Your task to perform on an android device: open app "Microsoft Authenticator" (install if not already installed) Image 0: 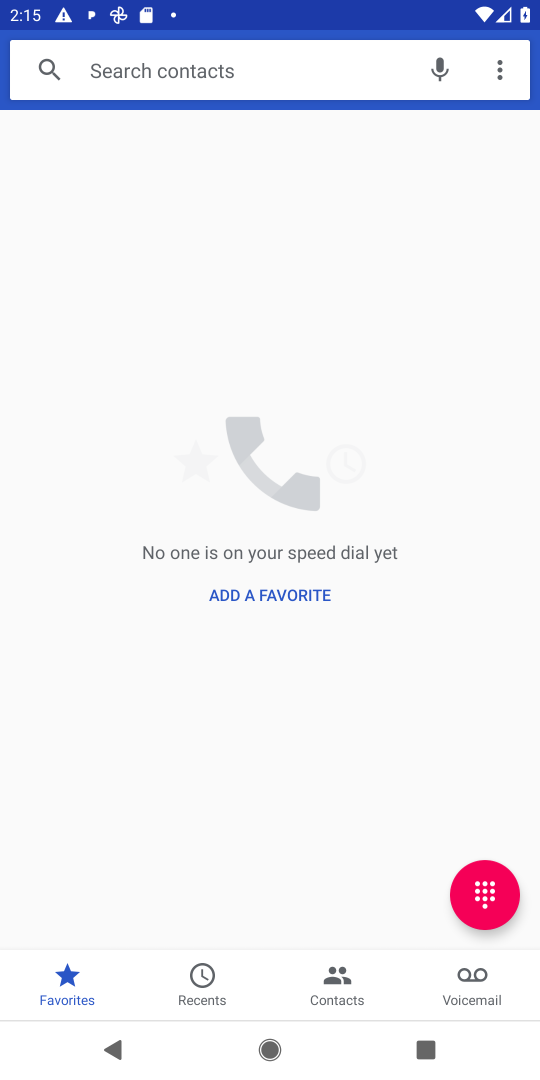
Step 0: press home button
Your task to perform on an android device: open app "Microsoft Authenticator" (install if not already installed) Image 1: 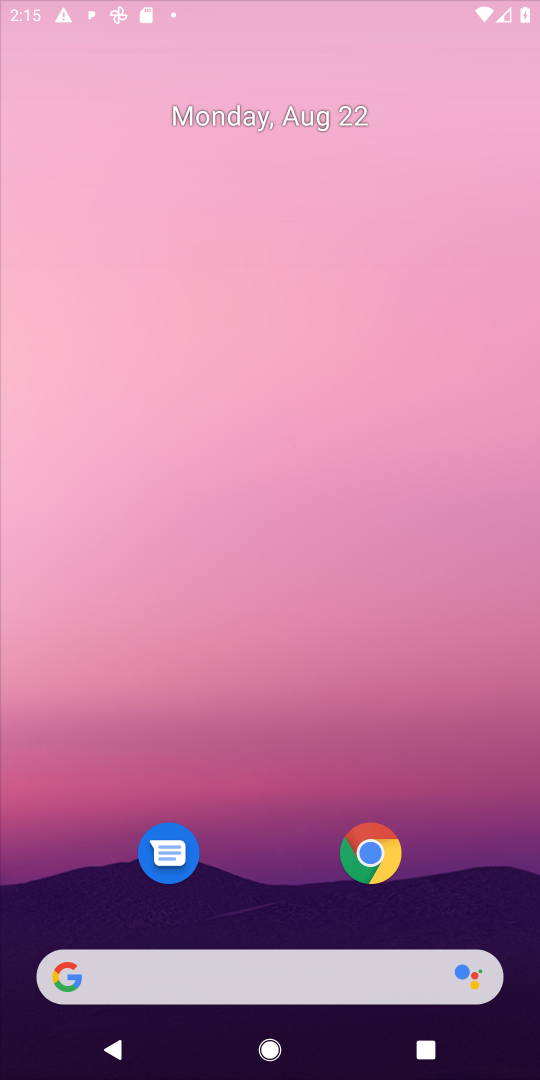
Step 1: drag from (259, 900) to (198, 247)
Your task to perform on an android device: open app "Microsoft Authenticator" (install if not already installed) Image 2: 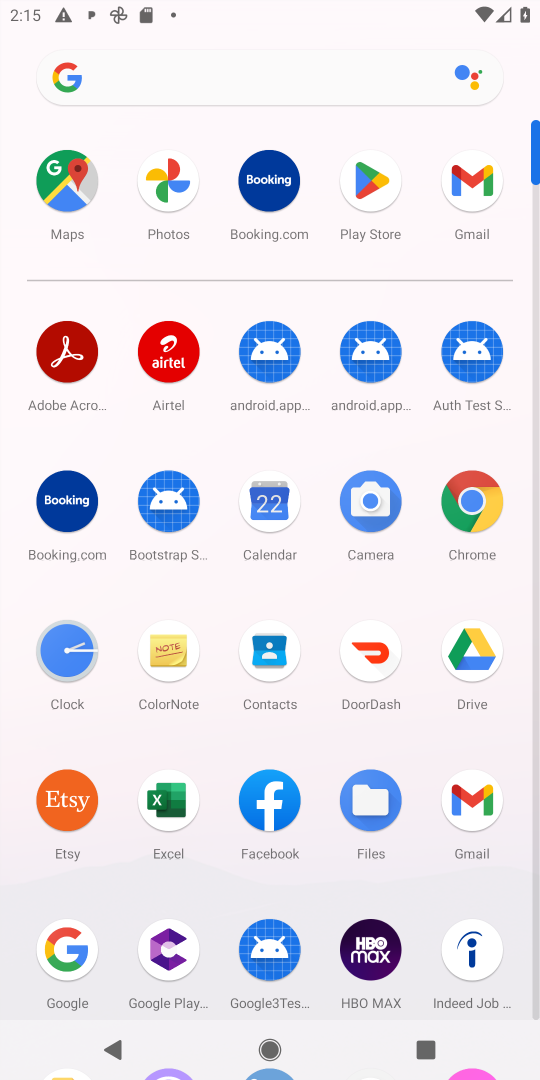
Step 2: click (365, 174)
Your task to perform on an android device: open app "Microsoft Authenticator" (install if not already installed) Image 3: 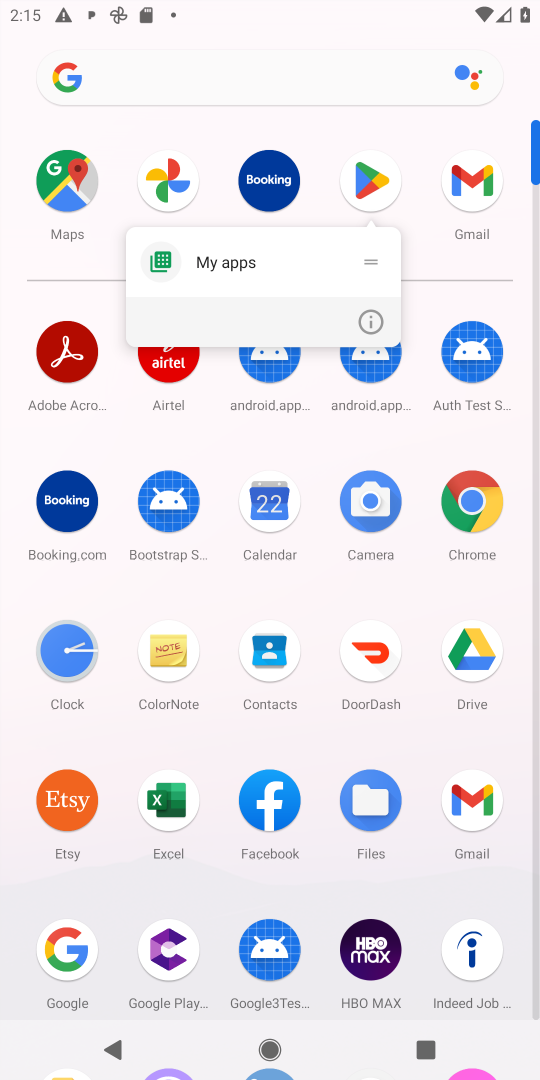
Step 3: click (365, 174)
Your task to perform on an android device: open app "Microsoft Authenticator" (install if not already installed) Image 4: 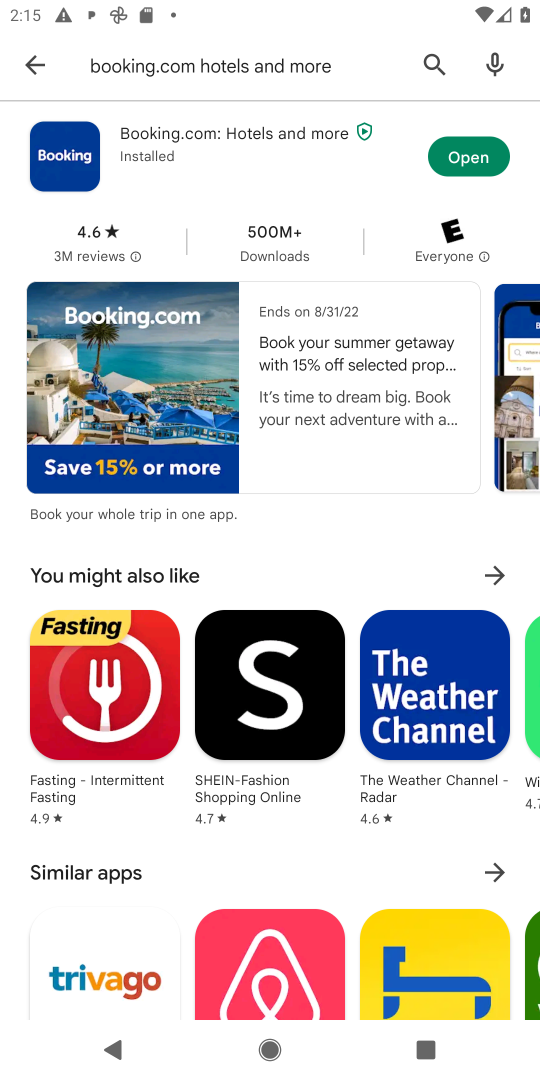
Step 4: click (37, 62)
Your task to perform on an android device: open app "Microsoft Authenticator" (install if not already installed) Image 5: 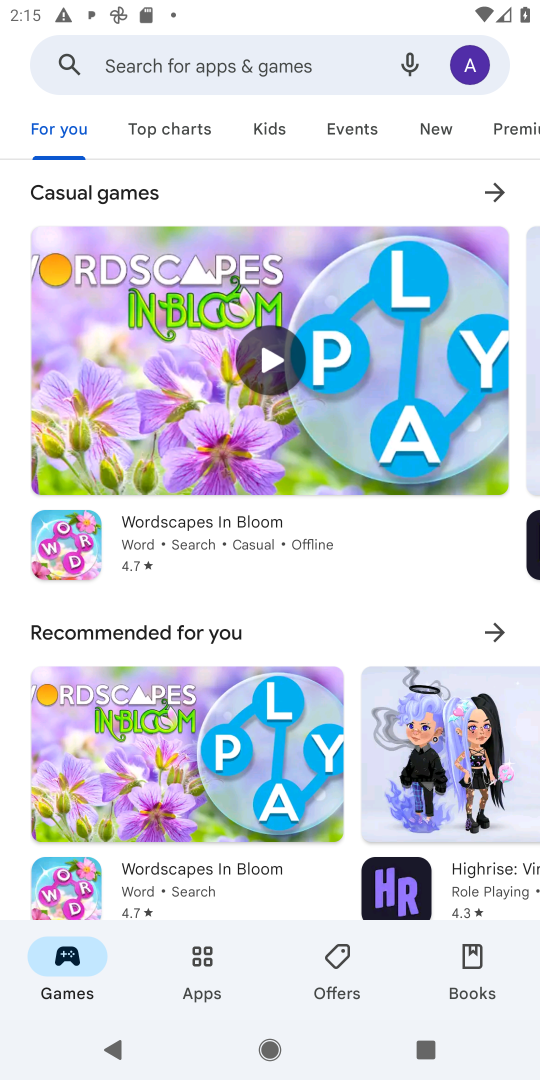
Step 5: click (204, 59)
Your task to perform on an android device: open app "Microsoft Authenticator" (install if not already installed) Image 6: 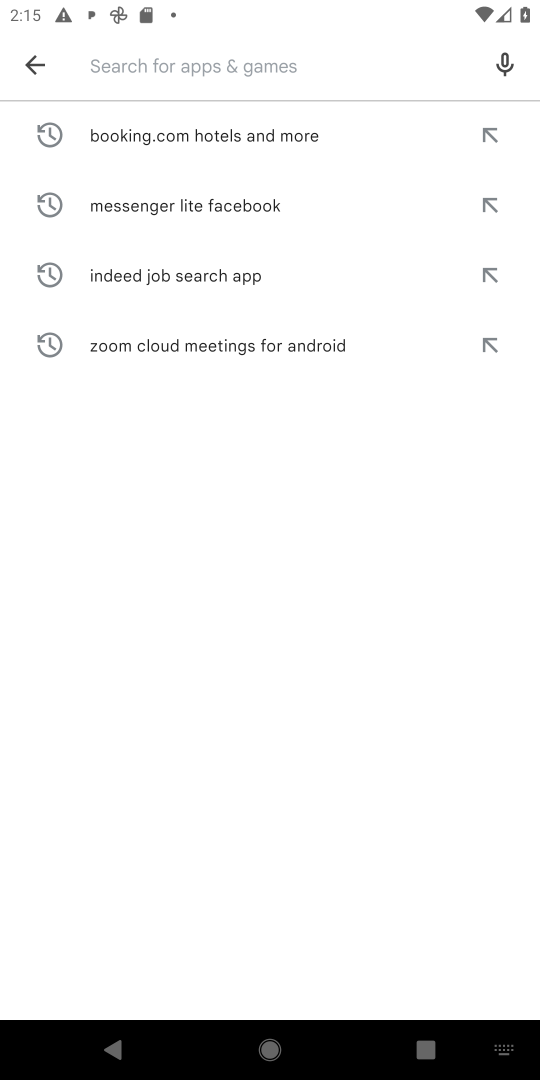
Step 6: type "Microsoft Authenticator "
Your task to perform on an android device: open app "Microsoft Authenticator" (install if not already installed) Image 7: 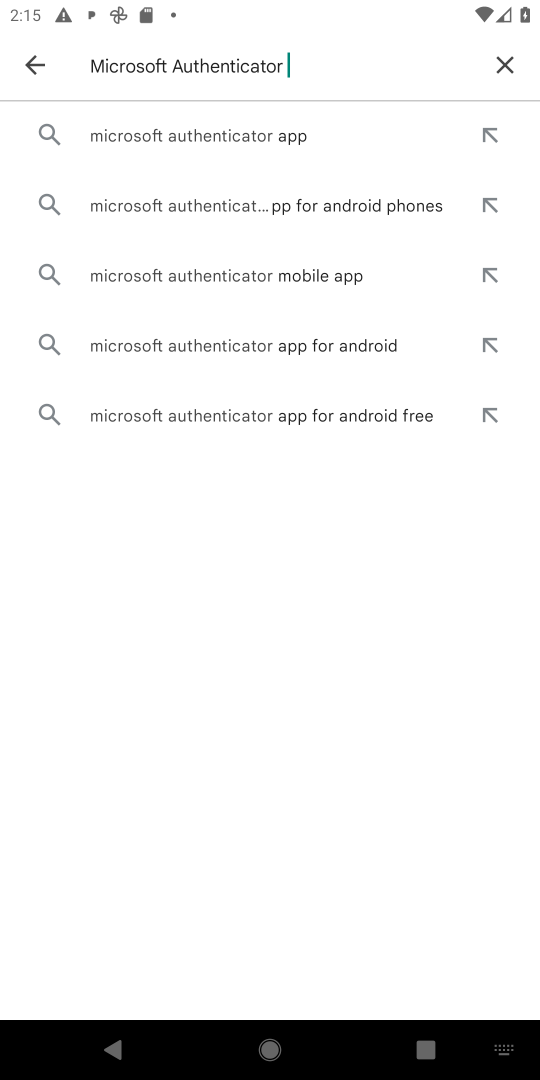
Step 7: click (231, 146)
Your task to perform on an android device: open app "Microsoft Authenticator" (install if not already installed) Image 8: 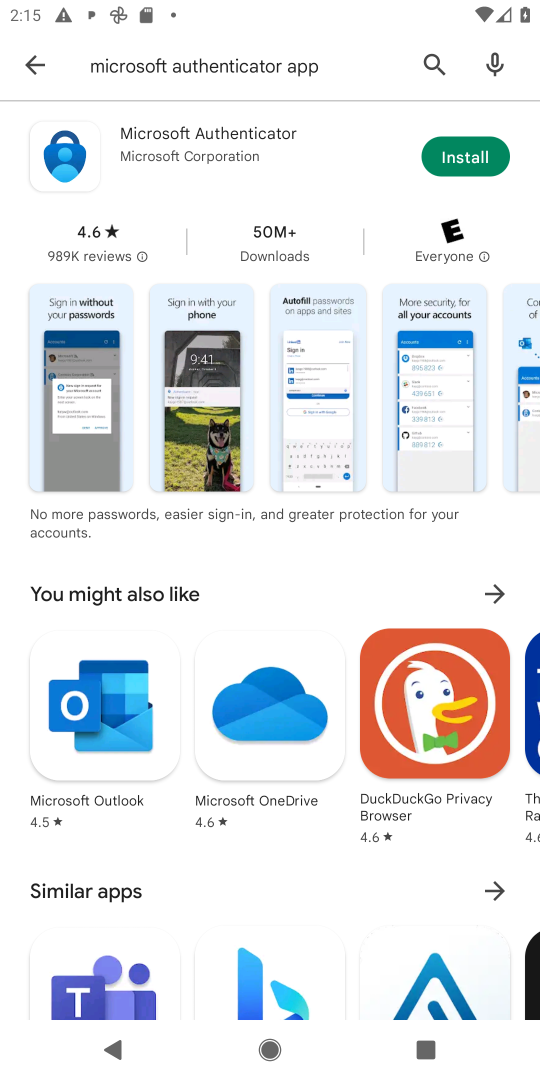
Step 8: click (477, 149)
Your task to perform on an android device: open app "Microsoft Authenticator" (install if not already installed) Image 9: 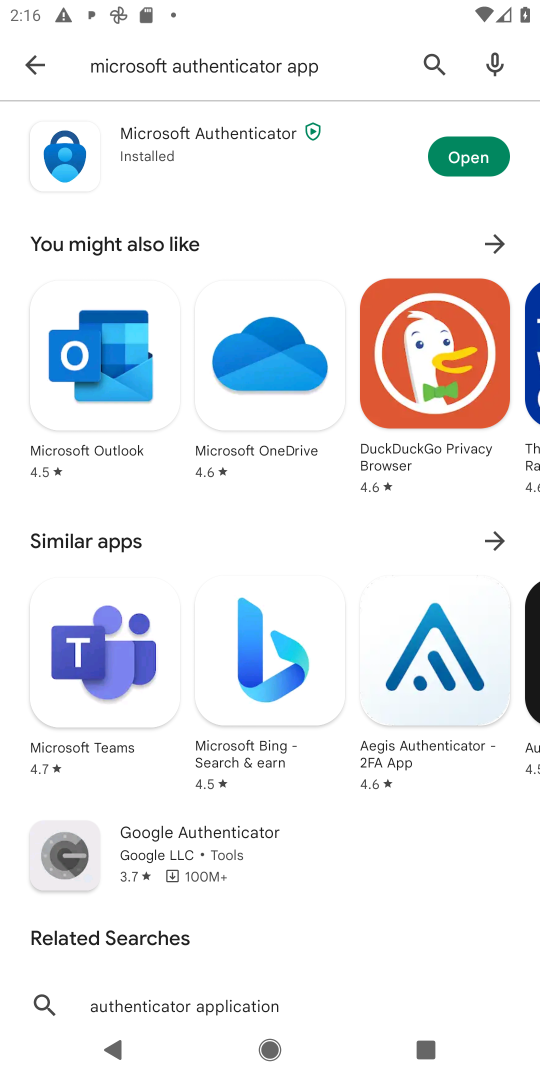
Step 9: click (468, 160)
Your task to perform on an android device: open app "Microsoft Authenticator" (install if not already installed) Image 10: 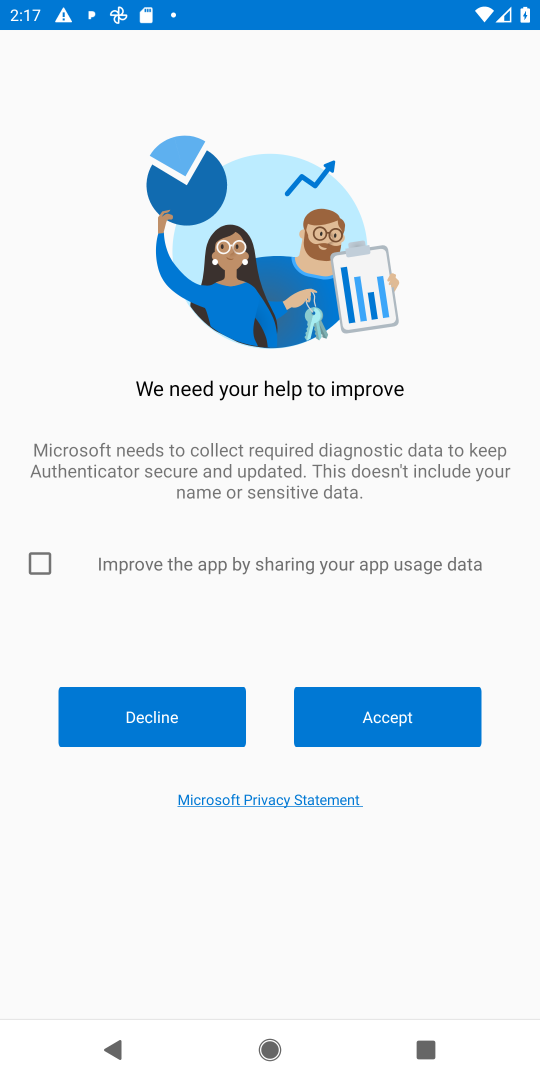
Step 10: task complete